Your task to perform on an android device: Check the weather Image 0: 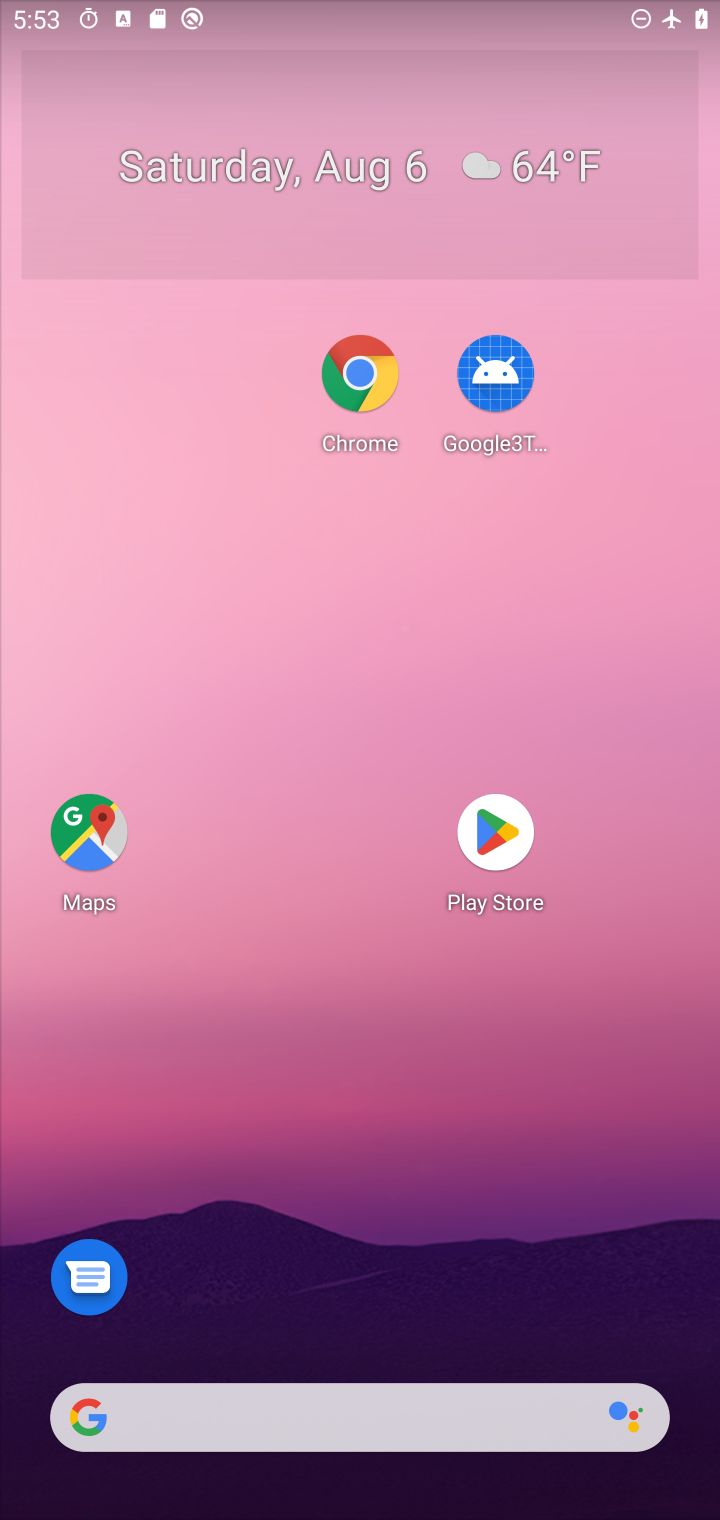
Step 0: drag from (489, 1396) to (188, 80)
Your task to perform on an android device: Check the weather Image 1: 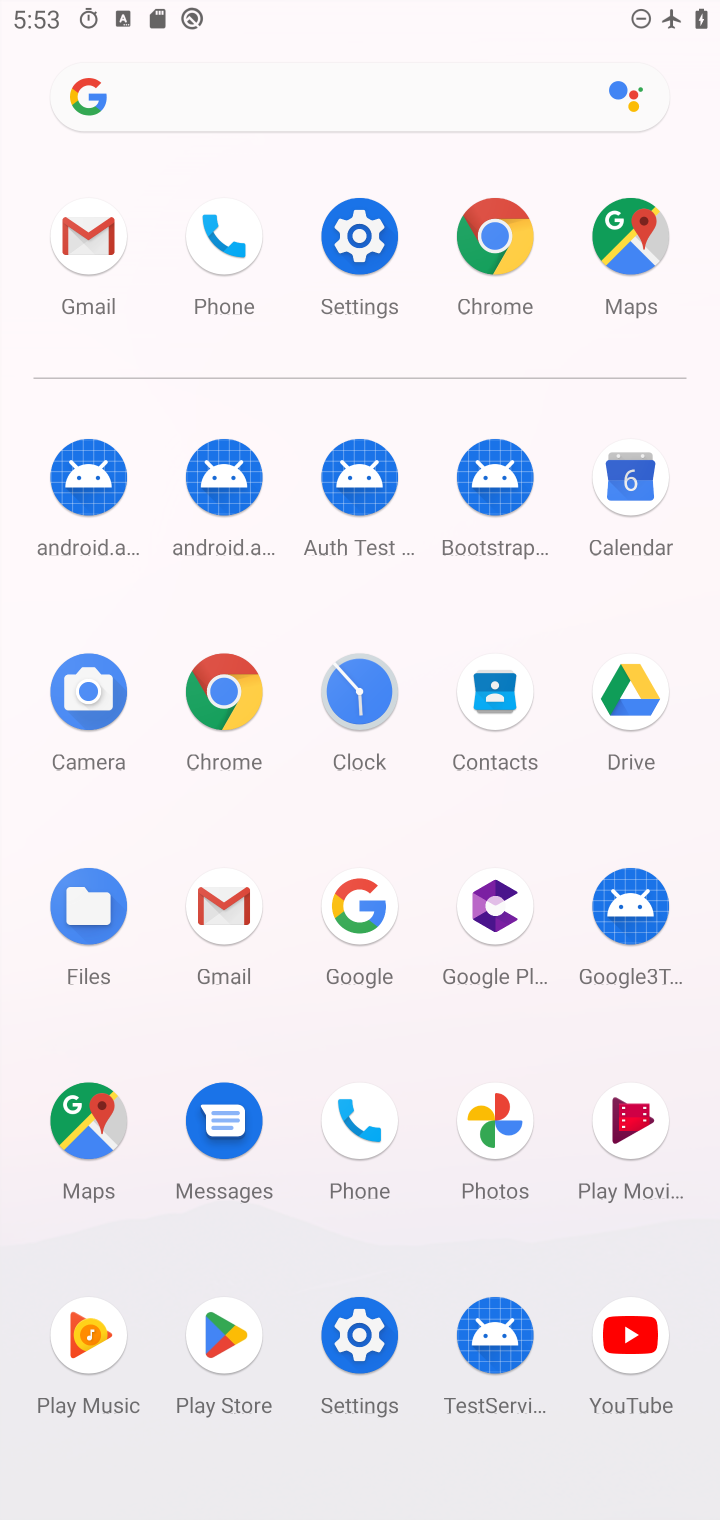
Step 1: click (202, 694)
Your task to perform on an android device: Check the weather Image 2: 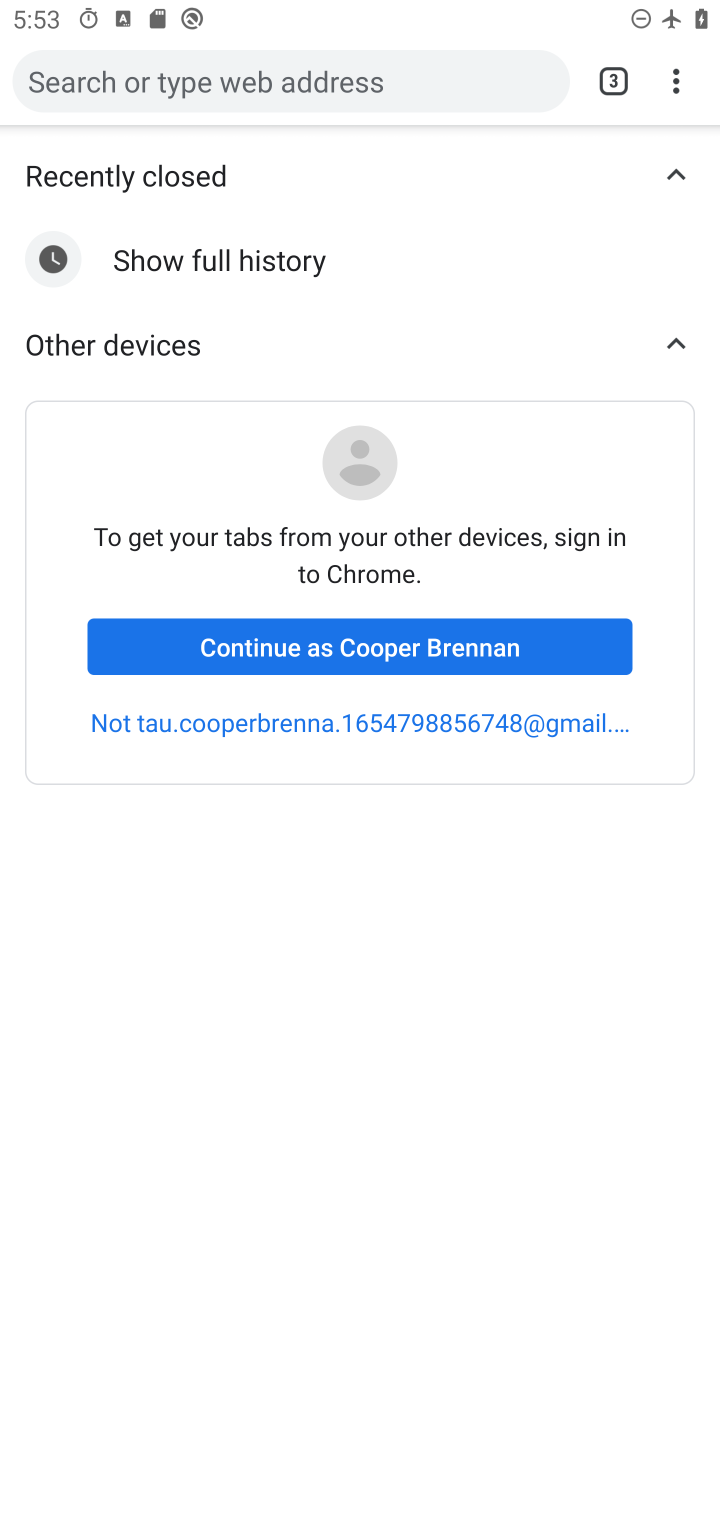
Step 2: click (456, 92)
Your task to perform on an android device: Check the weather Image 3: 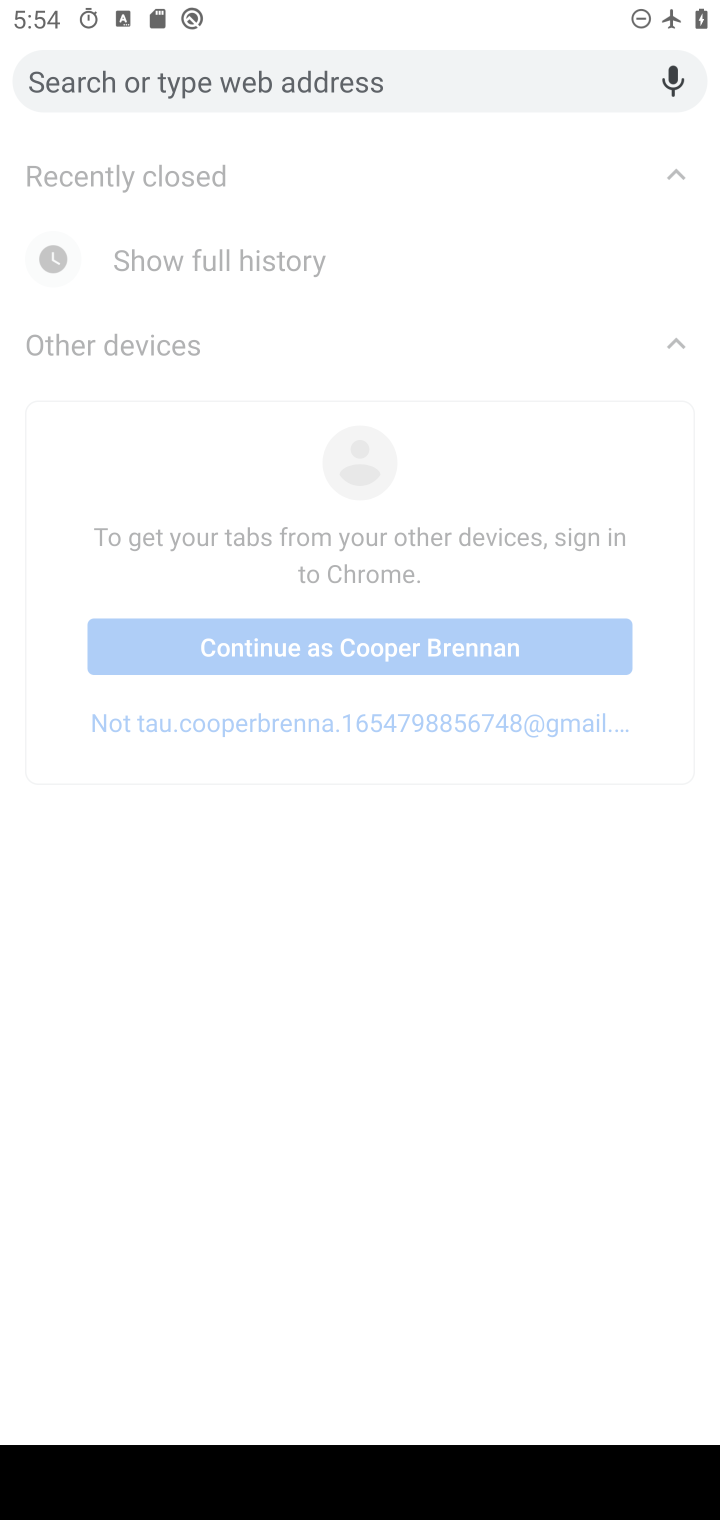
Step 3: type "check the weather"
Your task to perform on an android device: Check the weather Image 4: 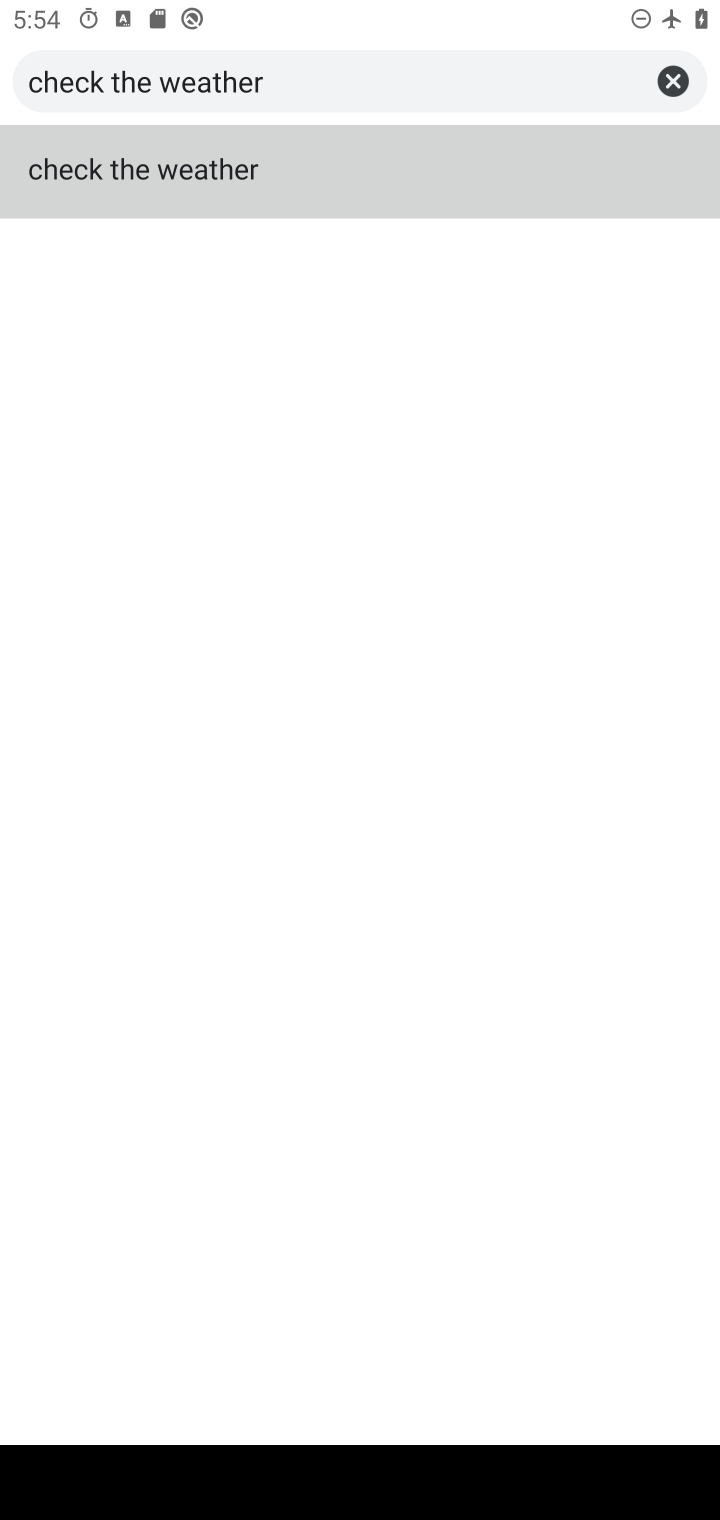
Step 4: click (338, 189)
Your task to perform on an android device: Check the weather Image 5: 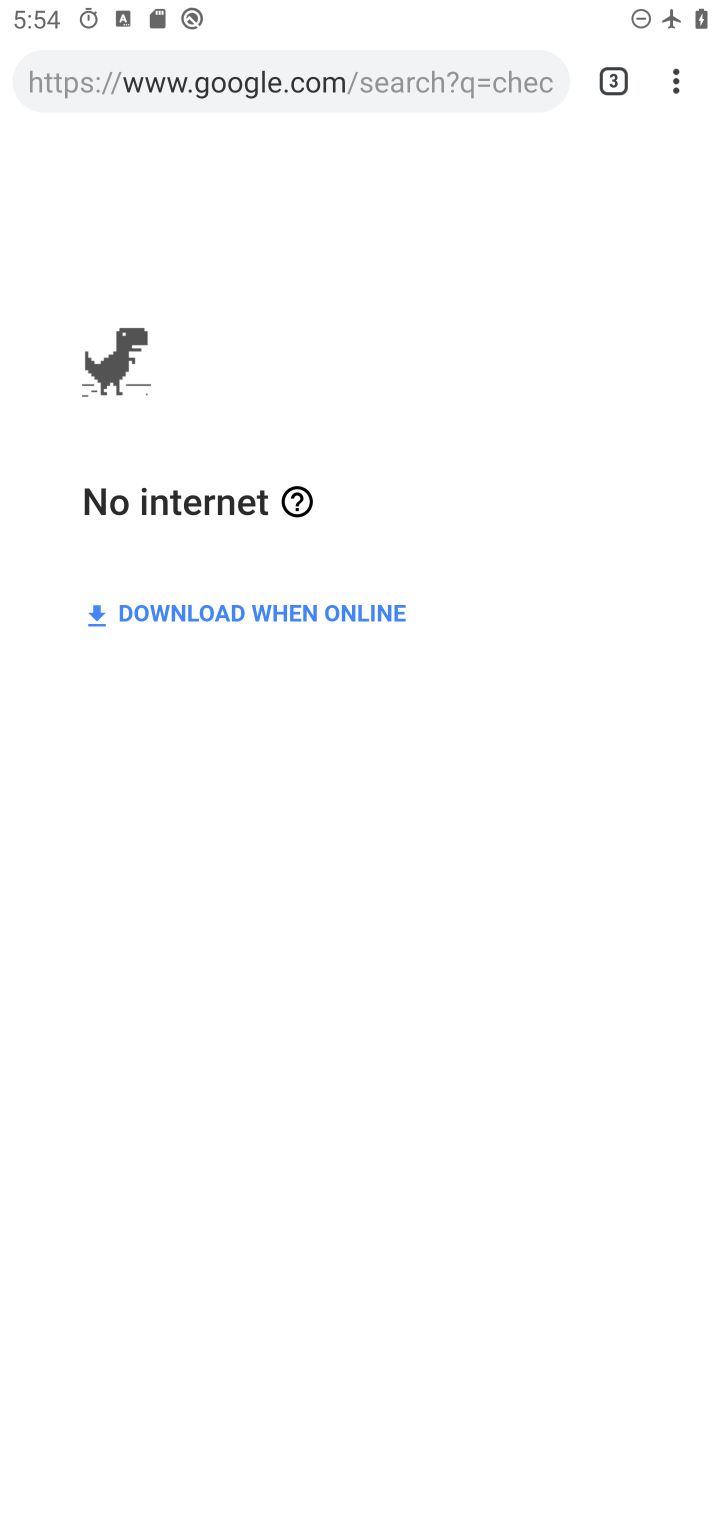
Step 5: task complete